Your task to perform on an android device: Do I have any events today? Image 0: 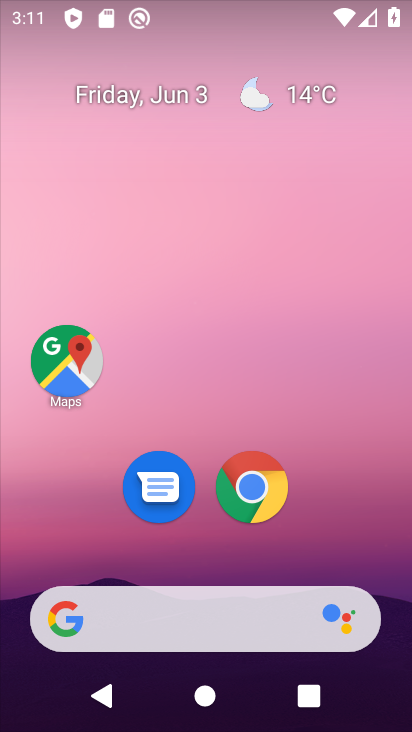
Step 0: click (249, 95)
Your task to perform on an android device: Do I have any events today? Image 1: 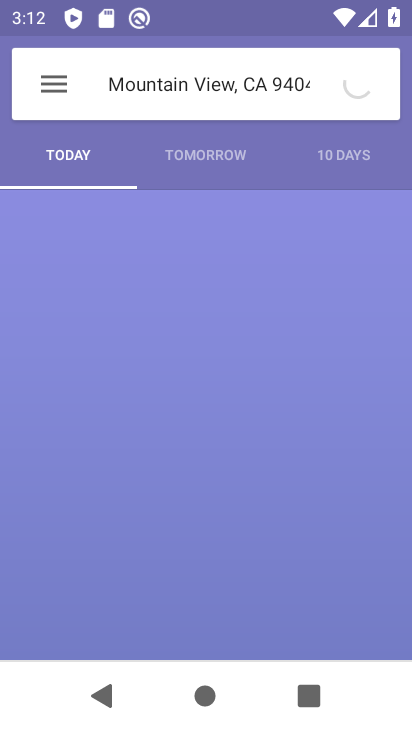
Step 1: press home button
Your task to perform on an android device: Do I have any events today? Image 2: 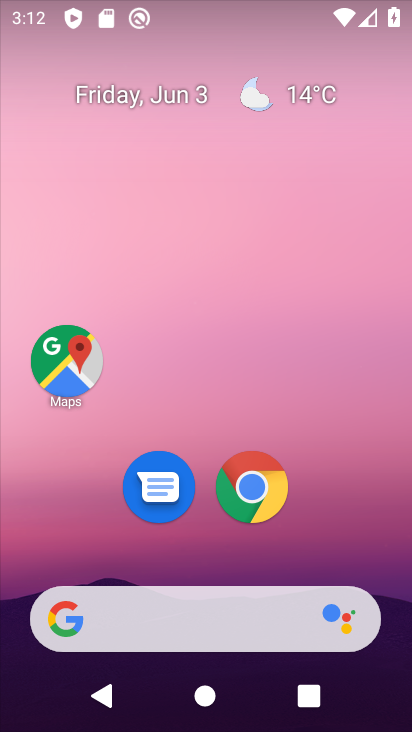
Step 2: drag from (227, 456) to (279, 84)
Your task to perform on an android device: Do I have any events today? Image 3: 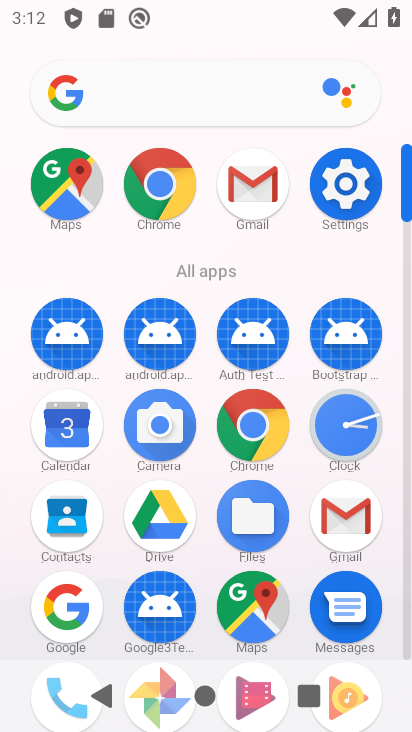
Step 3: click (59, 425)
Your task to perform on an android device: Do I have any events today? Image 4: 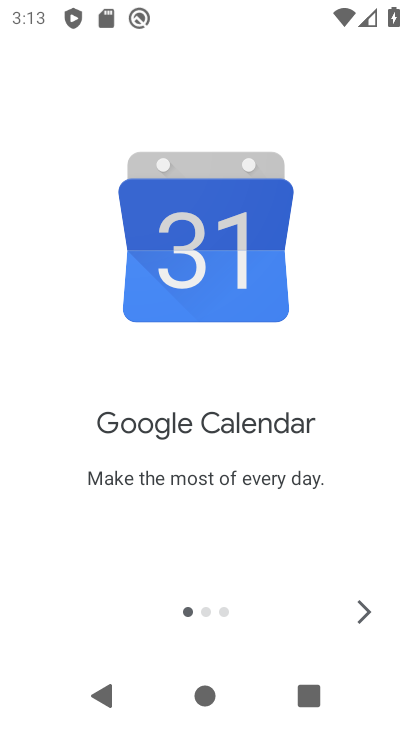
Step 4: press home button
Your task to perform on an android device: Do I have any events today? Image 5: 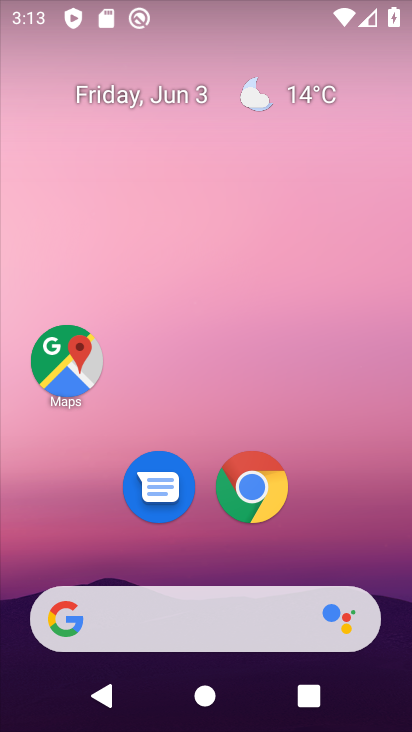
Step 5: drag from (218, 544) to (274, 81)
Your task to perform on an android device: Do I have any events today? Image 6: 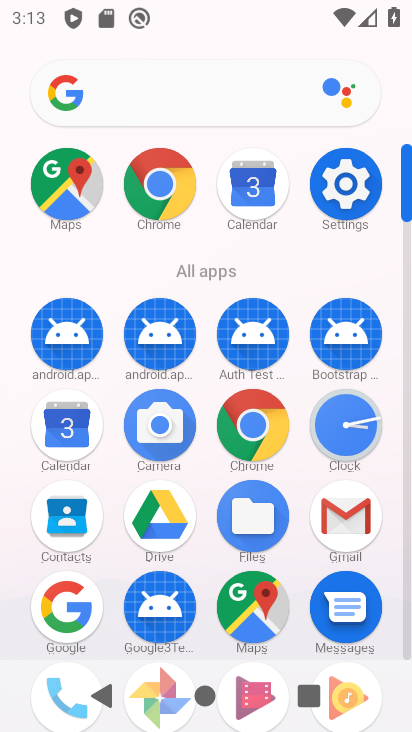
Step 6: click (64, 431)
Your task to perform on an android device: Do I have any events today? Image 7: 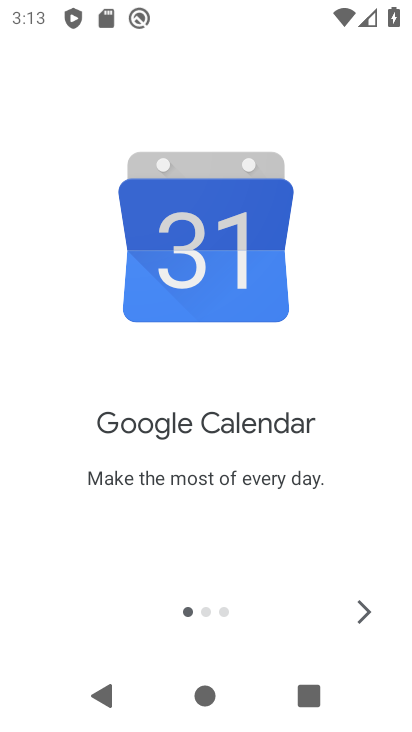
Step 7: click (356, 616)
Your task to perform on an android device: Do I have any events today? Image 8: 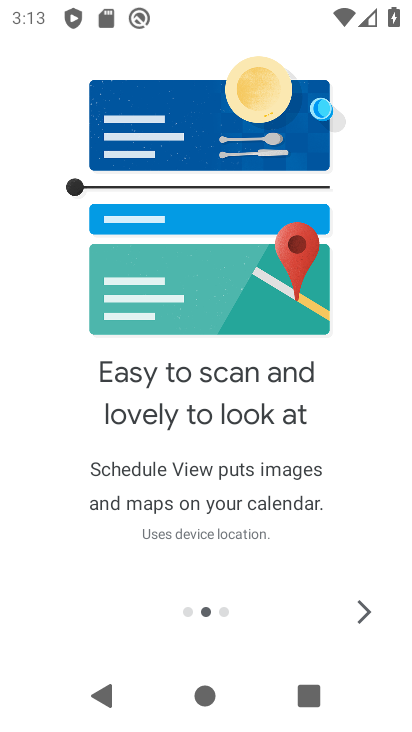
Step 8: click (371, 609)
Your task to perform on an android device: Do I have any events today? Image 9: 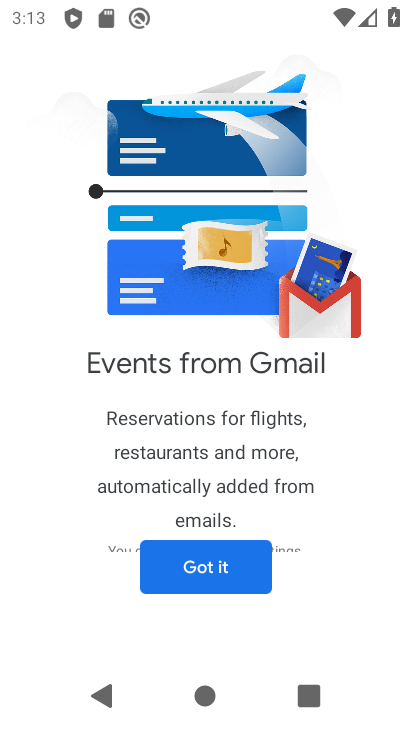
Step 9: click (223, 580)
Your task to perform on an android device: Do I have any events today? Image 10: 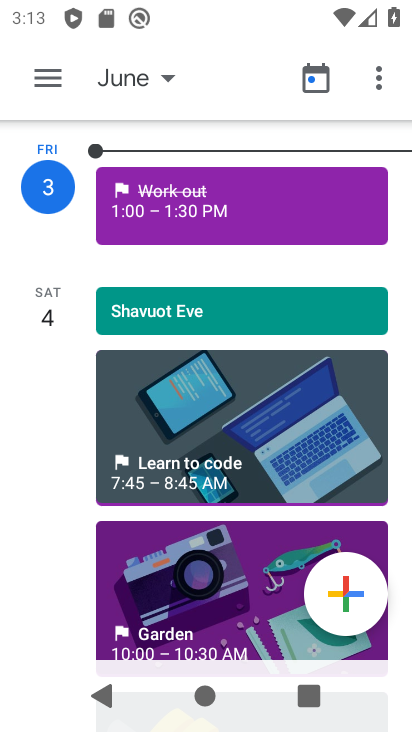
Step 10: drag from (197, 338) to (197, 491)
Your task to perform on an android device: Do I have any events today? Image 11: 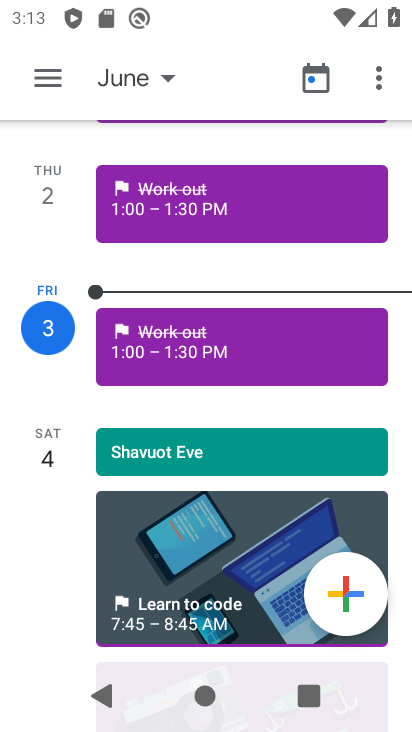
Step 11: click (171, 359)
Your task to perform on an android device: Do I have any events today? Image 12: 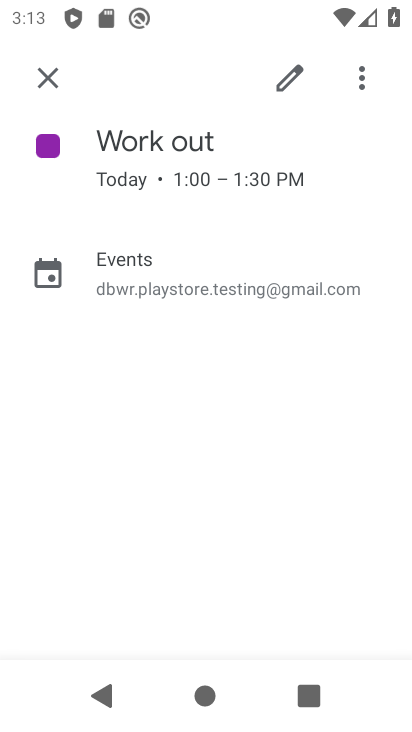
Step 12: task complete